Your task to perform on an android device: turn off notifications settings in the gmail app Image 0: 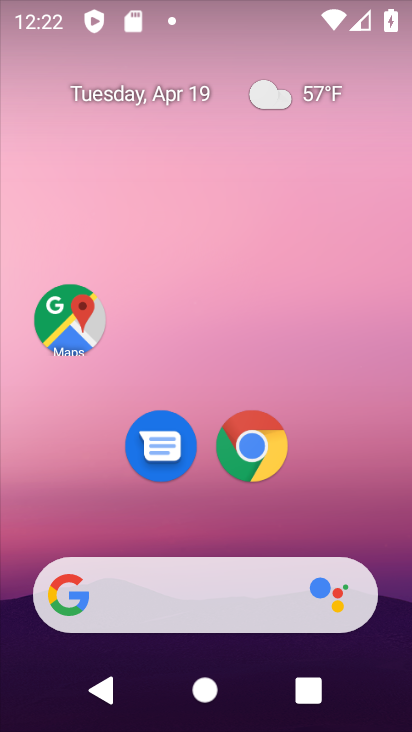
Step 0: drag from (373, 456) to (369, 28)
Your task to perform on an android device: turn off notifications settings in the gmail app Image 1: 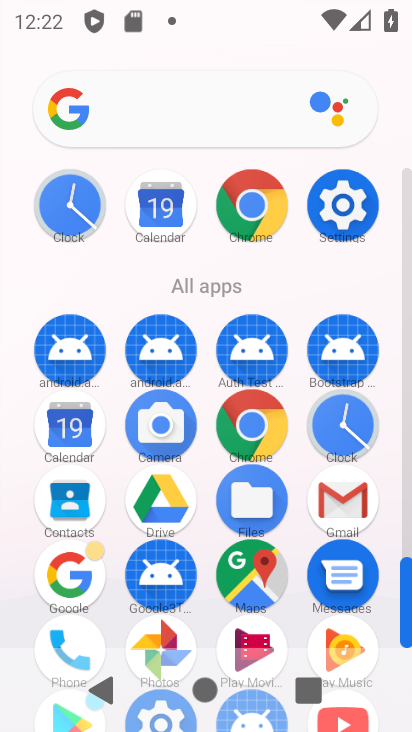
Step 1: click (329, 490)
Your task to perform on an android device: turn off notifications settings in the gmail app Image 2: 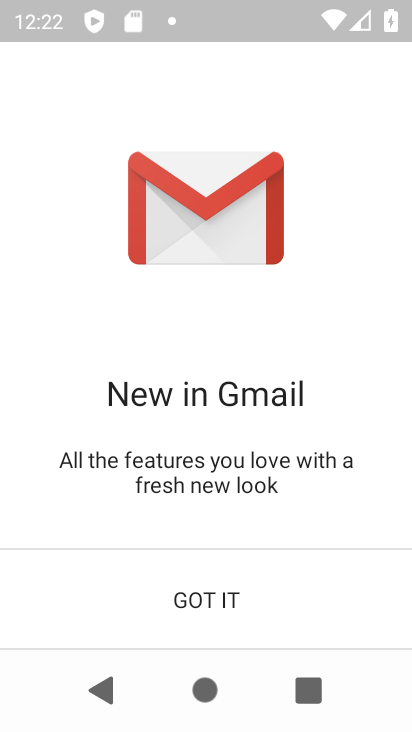
Step 2: click (228, 594)
Your task to perform on an android device: turn off notifications settings in the gmail app Image 3: 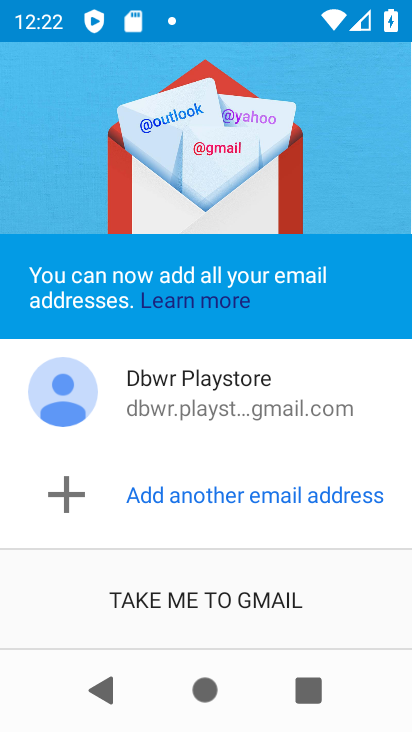
Step 3: click (228, 594)
Your task to perform on an android device: turn off notifications settings in the gmail app Image 4: 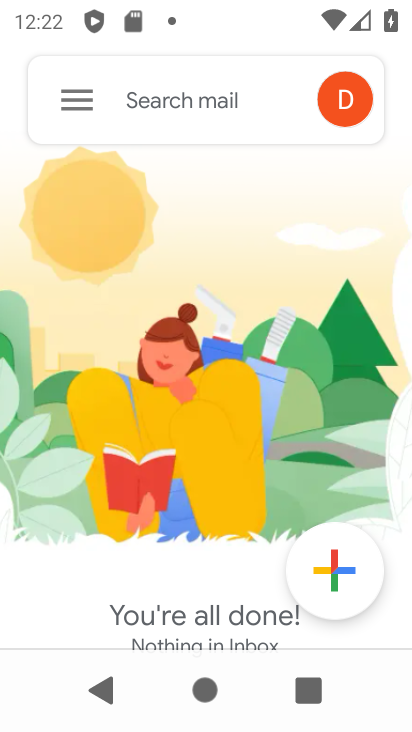
Step 4: click (81, 104)
Your task to perform on an android device: turn off notifications settings in the gmail app Image 5: 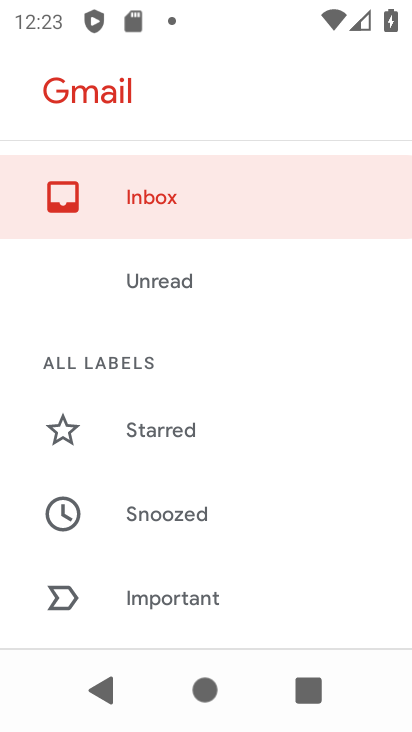
Step 5: drag from (228, 510) to (252, 255)
Your task to perform on an android device: turn off notifications settings in the gmail app Image 6: 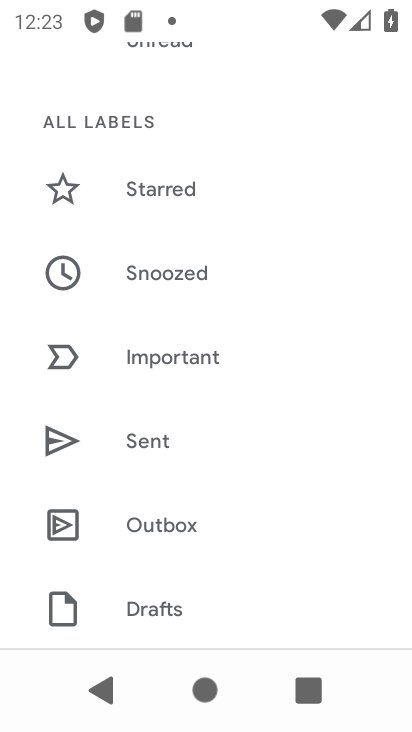
Step 6: drag from (244, 530) to (287, 175)
Your task to perform on an android device: turn off notifications settings in the gmail app Image 7: 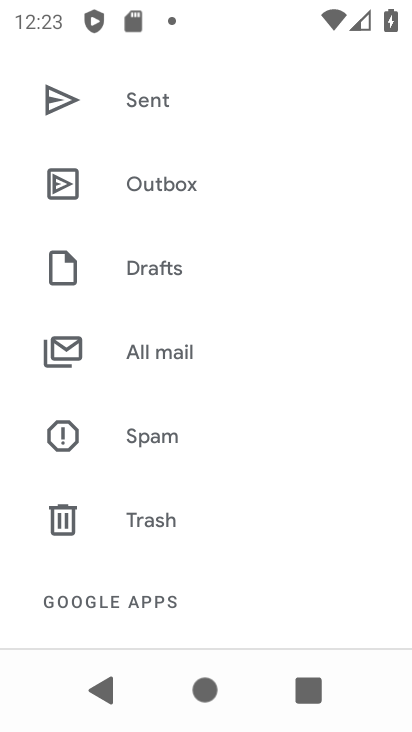
Step 7: drag from (240, 560) to (272, 197)
Your task to perform on an android device: turn off notifications settings in the gmail app Image 8: 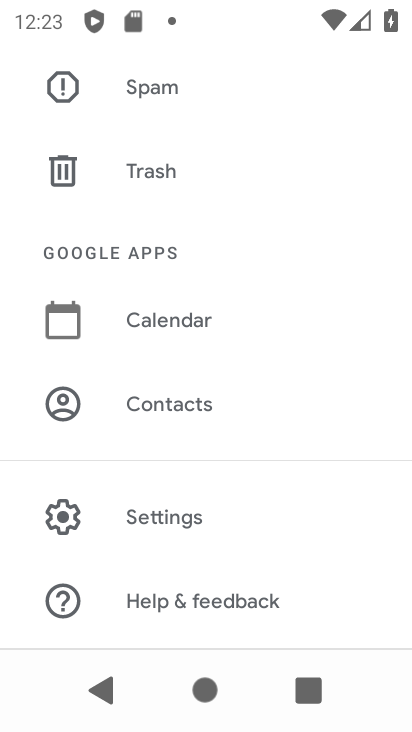
Step 8: click (187, 507)
Your task to perform on an android device: turn off notifications settings in the gmail app Image 9: 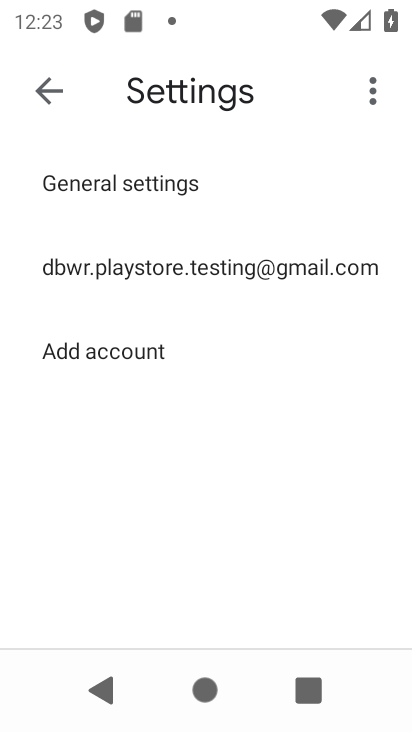
Step 9: click (301, 261)
Your task to perform on an android device: turn off notifications settings in the gmail app Image 10: 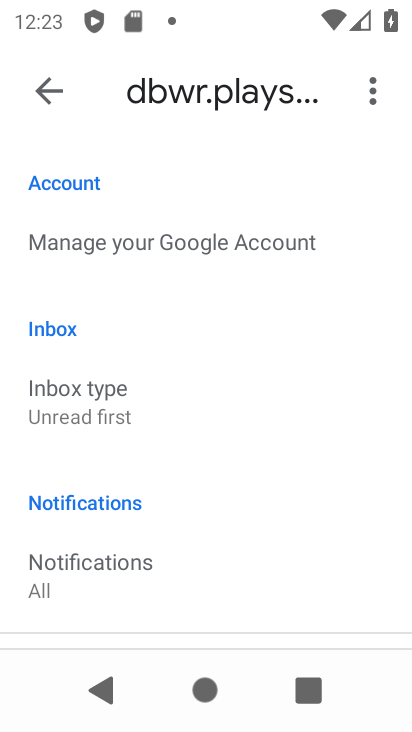
Step 10: drag from (271, 537) to (299, 178)
Your task to perform on an android device: turn off notifications settings in the gmail app Image 11: 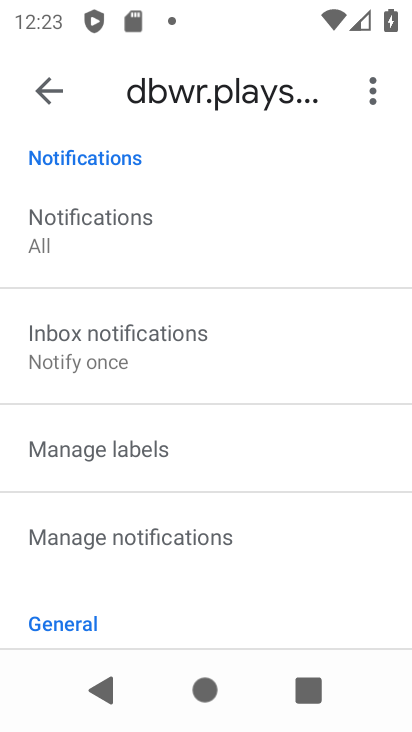
Step 11: drag from (240, 531) to (289, 277)
Your task to perform on an android device: turn off notifications settings in the gmail app Image 12: 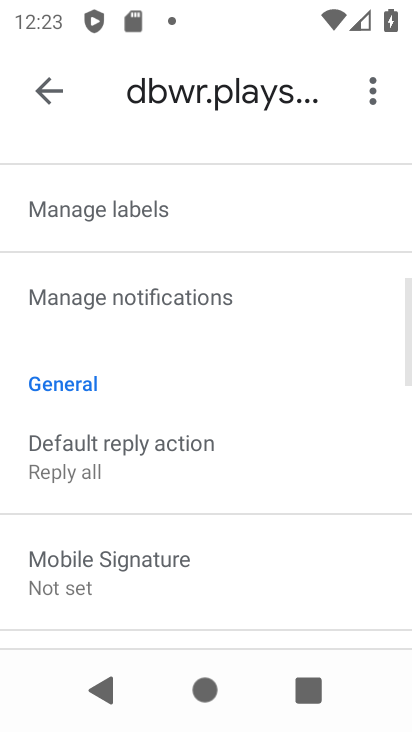
Step 12: click (278, 300)
Your task to perform on an android device: turn off notifications settings in the gmail app Image 13: 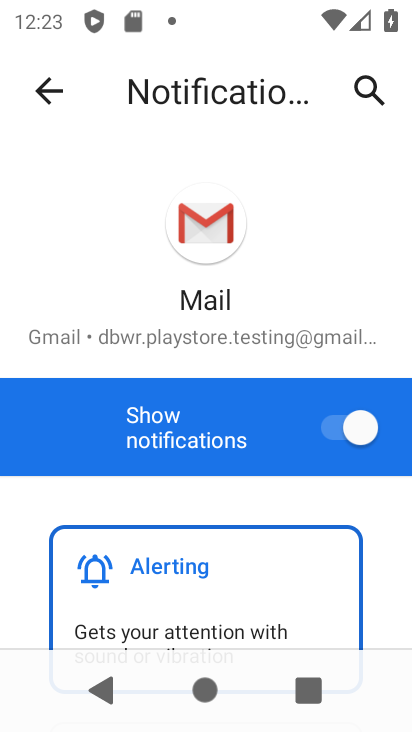
Step 13: click (328, 426)
Your task to perform on an android device: turn off notifications settings in the gmail app Image 14: 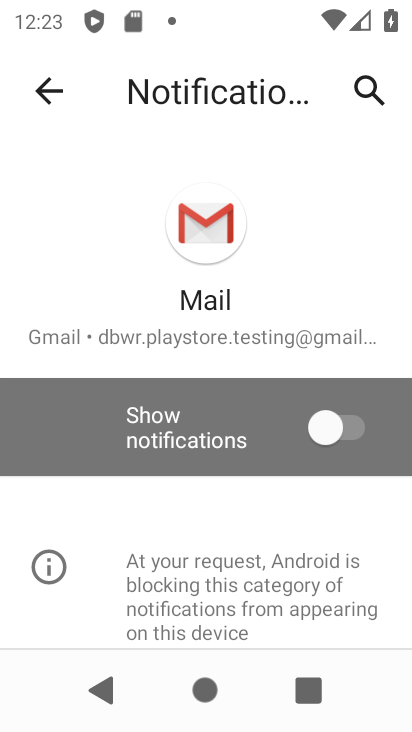
Step 14: task complete